Your task to perform on an android device: check android version Image 0: 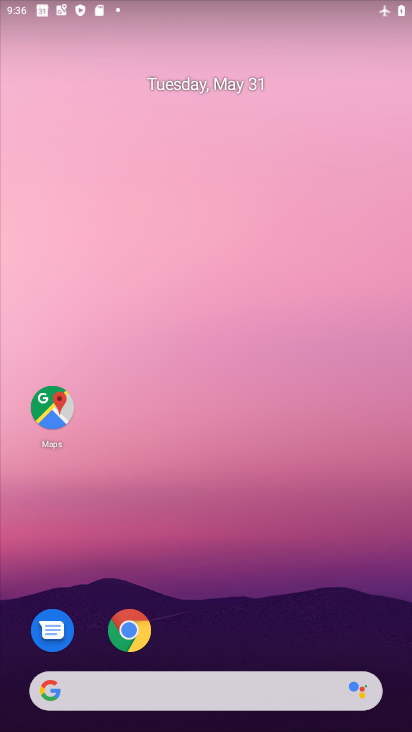
Step 0: drag from (220, 618) to (232, 200)
Your task to perform on an android device: check android version Image 1: 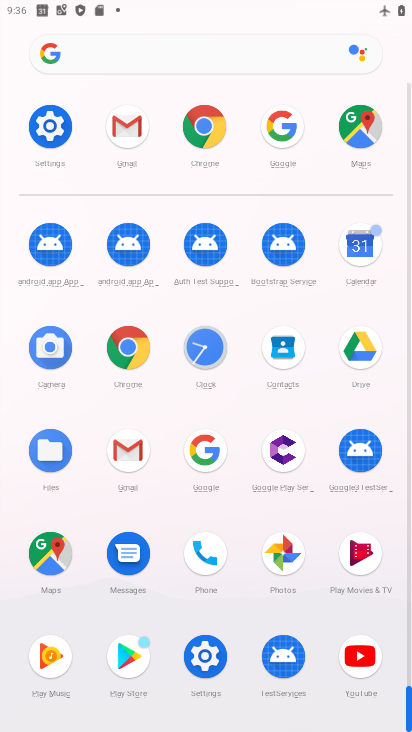
Step 1: click (55, 118)
Your task to perform on an android device: check android version Image 2: 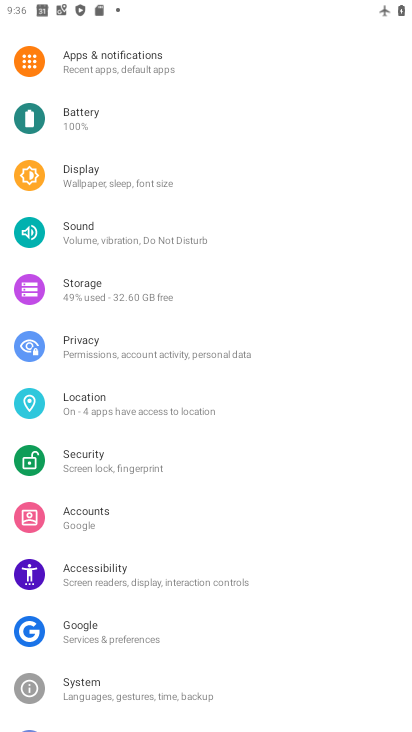
Step 2: drag from (211, 576) to (214, 209)
Your task to perform on an android device: check android version Image 3: 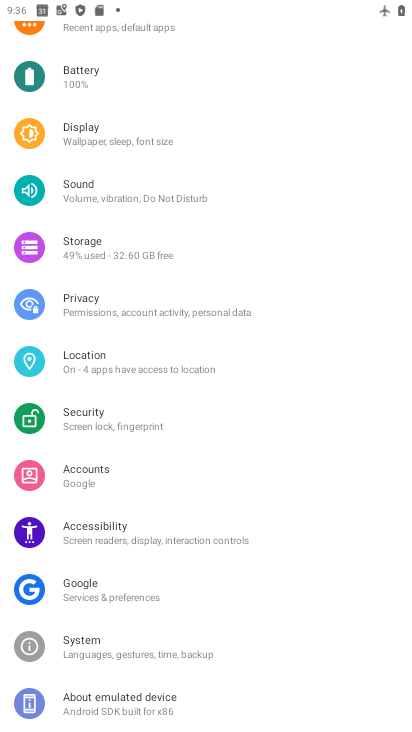
Step 3: click (188, 699)
Your task to perform on an android device: check android version Image 4: 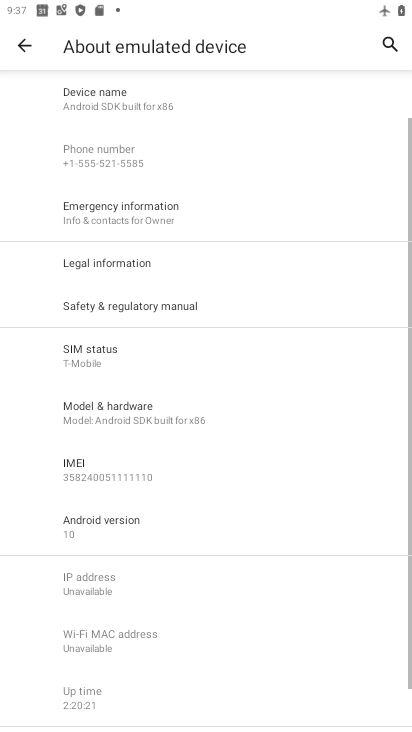
Step 4: task complete